Your task to perform on an android device: Is it going to rain today? Image 0: 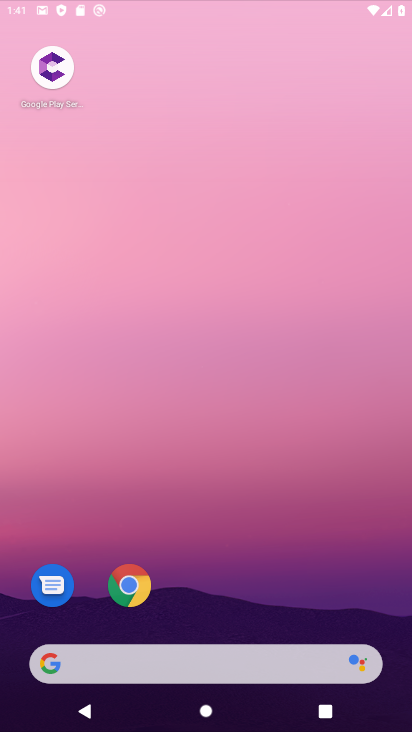
Step 0: click (221, 155)
Your task to perform on an android device: Is it going to rain today? Image 1: 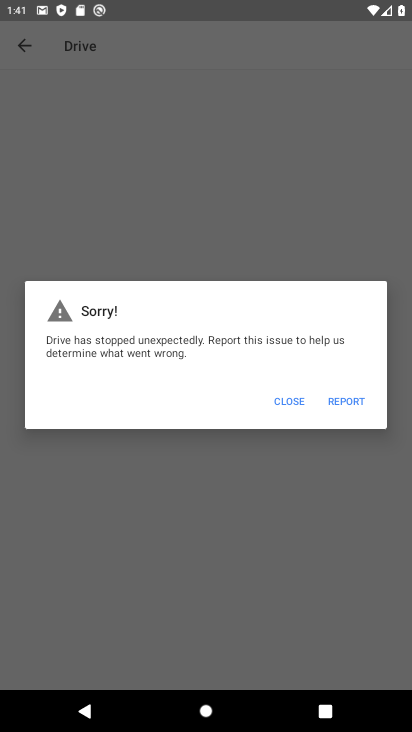
Step 1: press home button
Your task to perform on an android device: Is it going to rain today? Image 2: 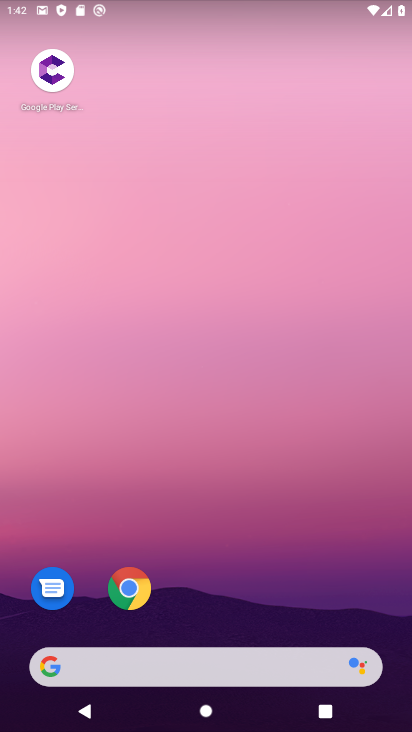
Step 2: click (134, 589)
Your task to perform on an android device: Is it going to rain today? Image 3: 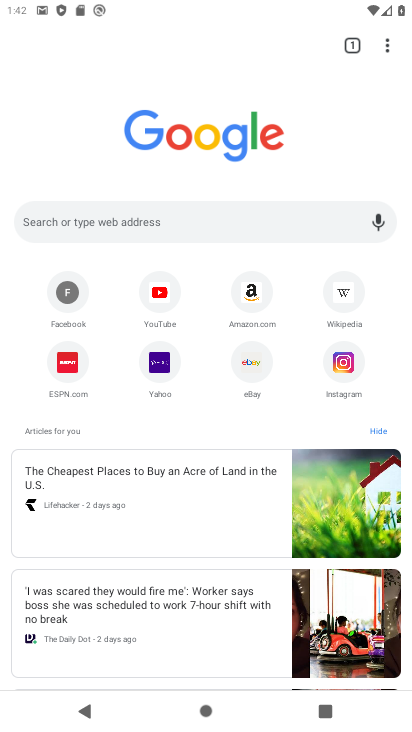
Step 3: click (241, 224)
Your task to perform on an android device: Is it going to rain today? Image 4: 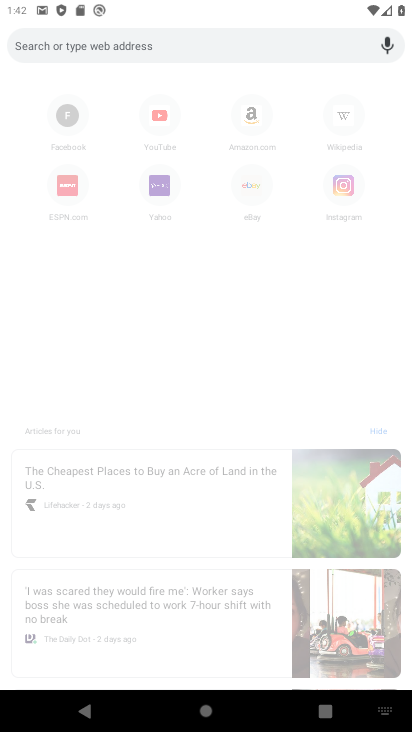
Step 4: type "Is it going to rain today?"
Your task to perform on an android device: Is it going to rain today? Image 5: 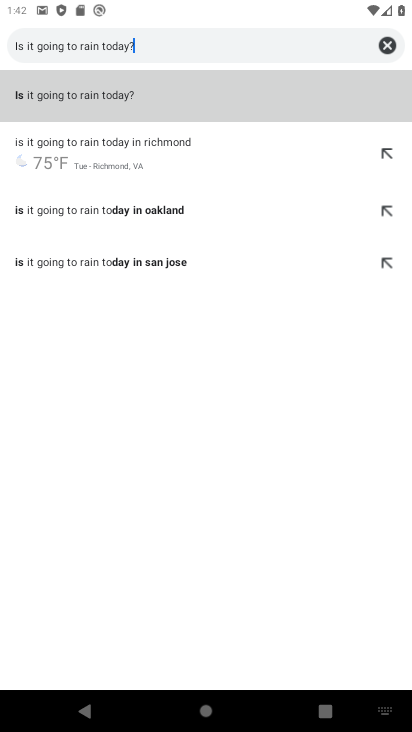
Step 5: click (233, 88)
Your task to perform on an android device: Is it going to rain today? Image 6: 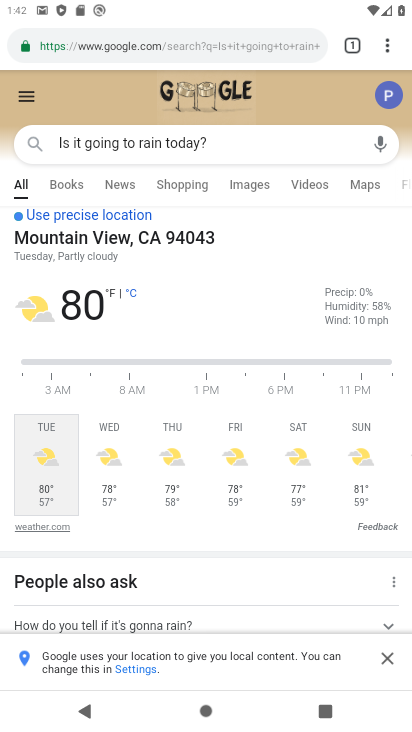
Step 6: task complete